Your task to perform on an android device: Search for Mexican restaurants on Maps Image 0: 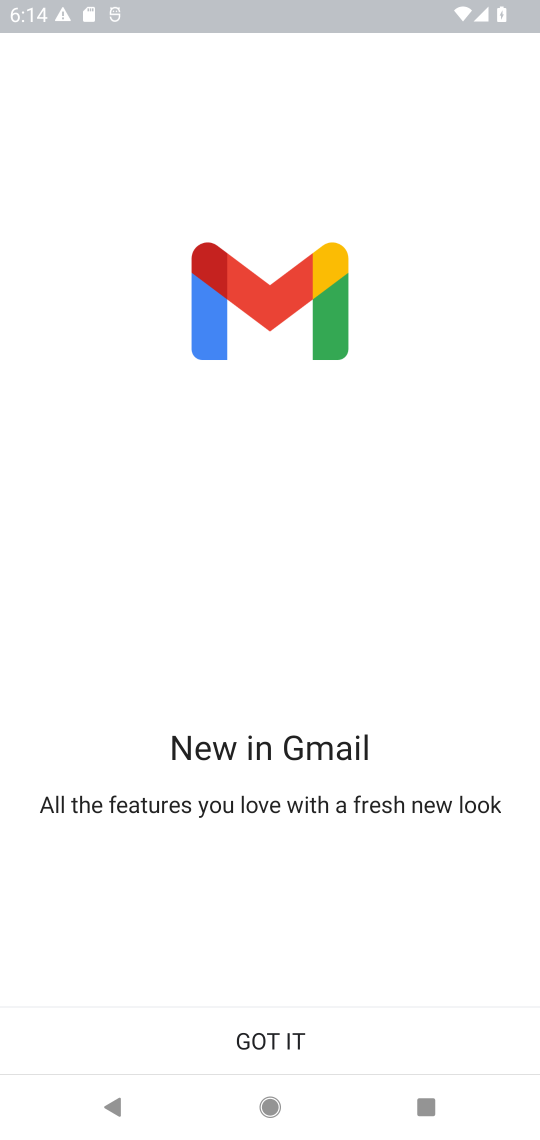
Step 0: press home button
Your task to perform on an android device: Search for Mexican restaurants on Maps Image 1: 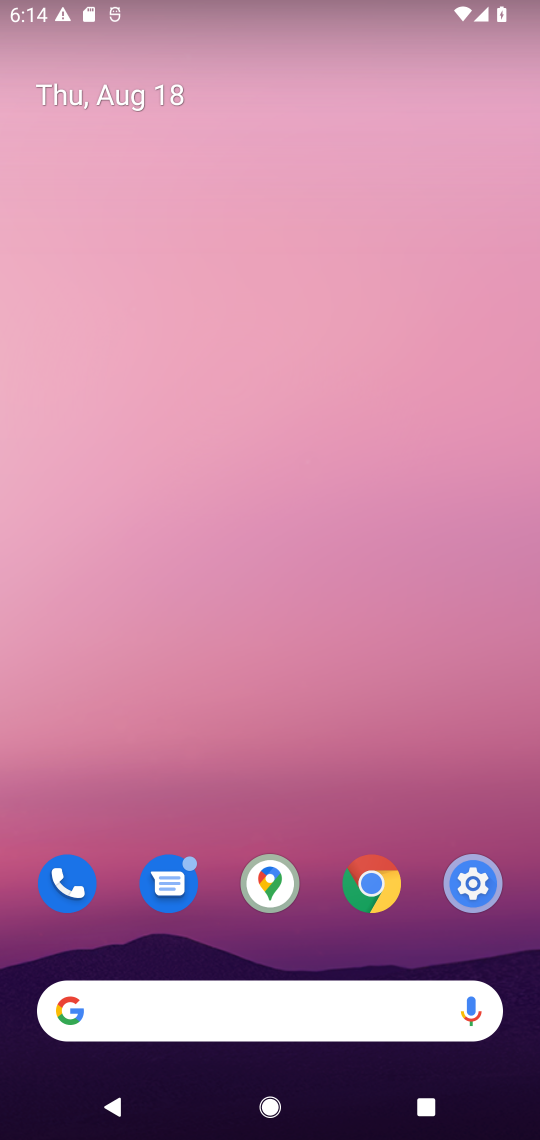
Step 1: click (256, 875)
Your task to perform on an android device: Search for Mexican restaurants on Maps Image 2: 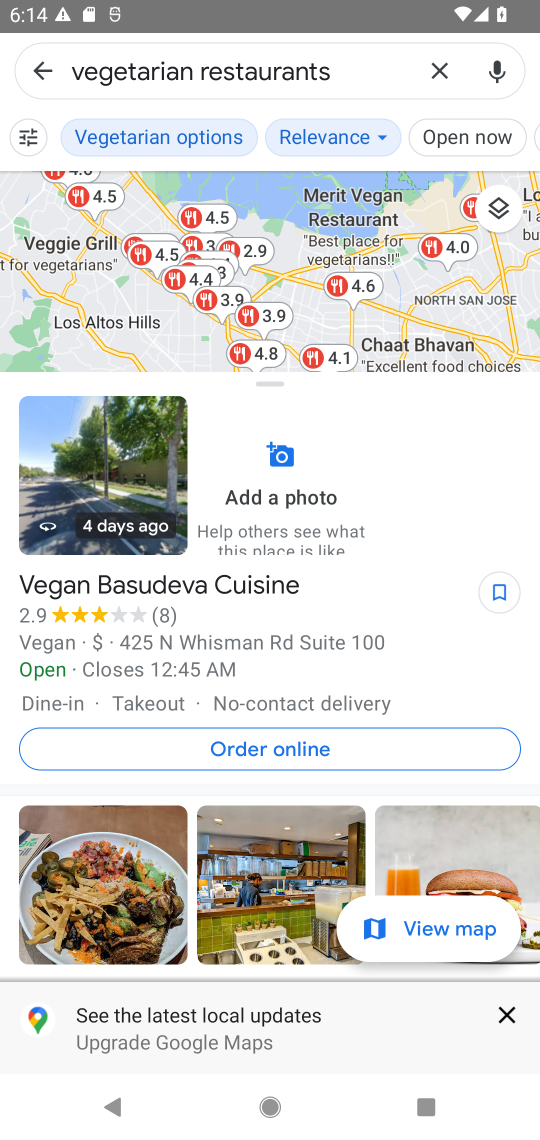
Step 2: click (43, 66)
Your task to perform on an android device: Search for Mexican restaurants on Maps Image 3: 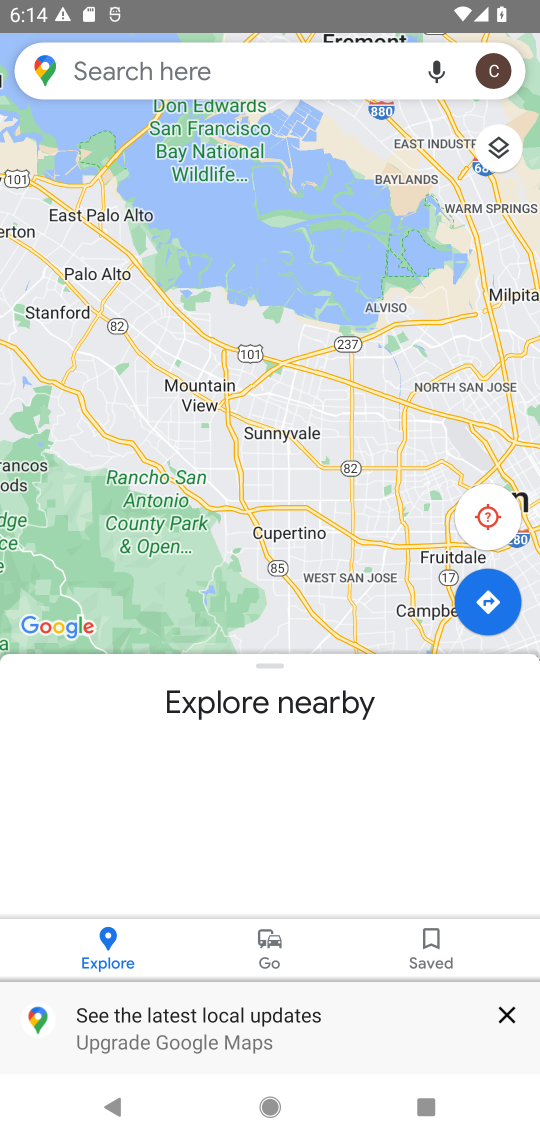
Step 3: click (79, 69)
Your task to perform on an android device: Search for Mexican restaurants on Maps Image 4: 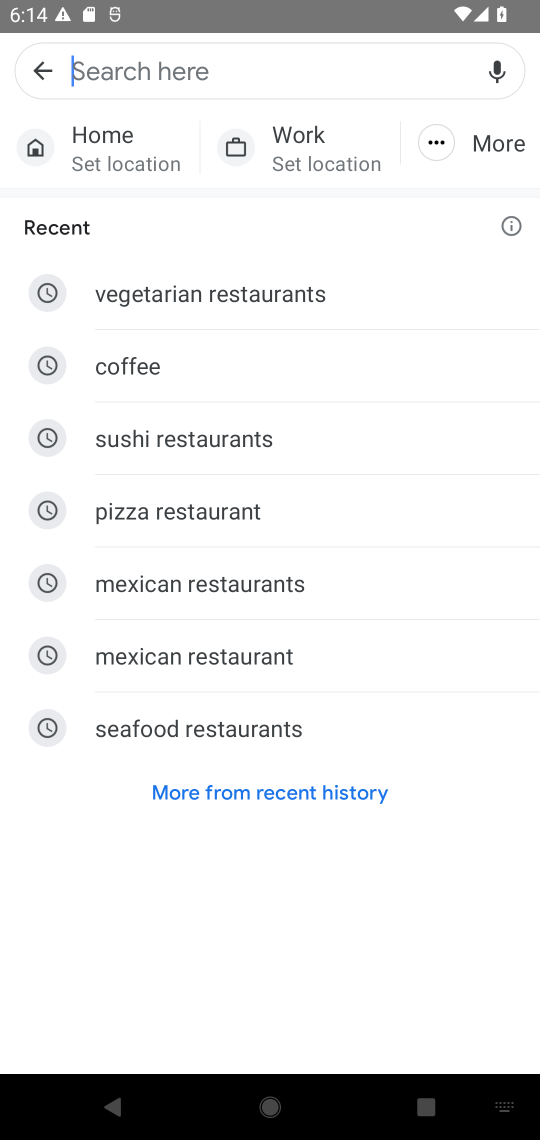
Step 4: click (177, 588)
Your task to perform on an android device: Search for Mexican restaurants on Maps Image 5: 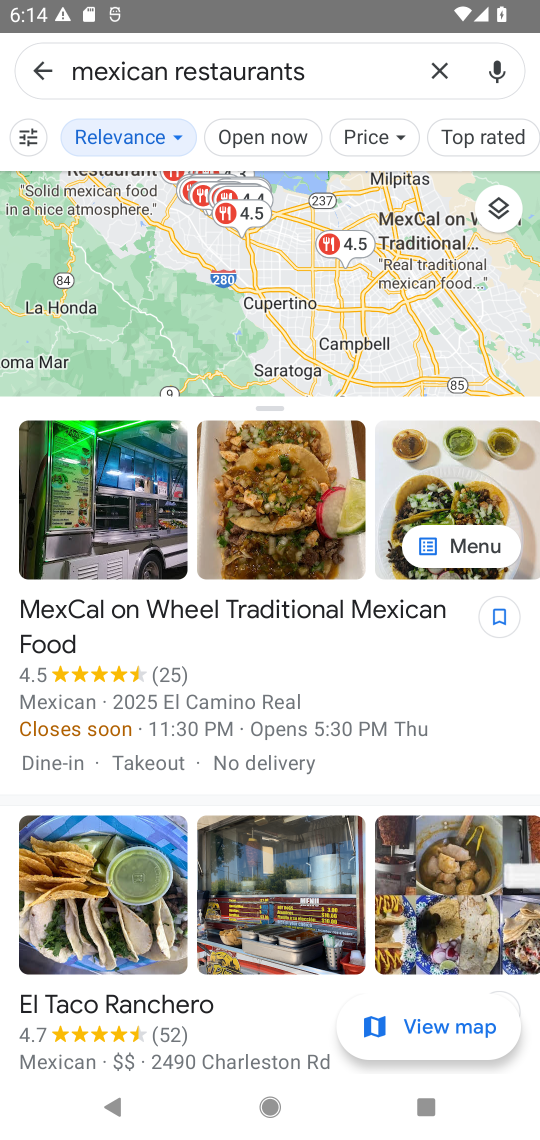
Step 5: task complete